Your task to perform on an android device: delete a single message in the gmail app Image 0: 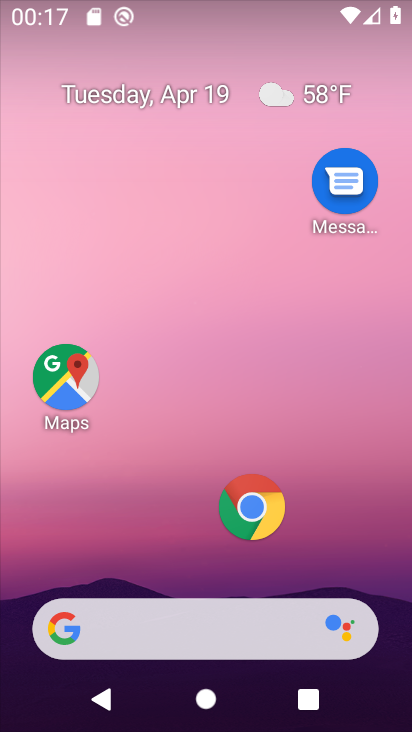
Step 0: drag from (180, 514) to (358, 5)
Your task to perform on an android device: delete a single message in the gmail app Image 1: 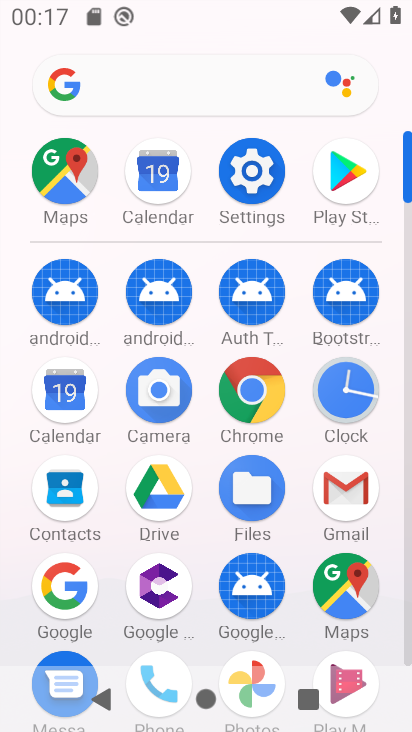
Step 1: click (337, 490)
Your task to perform on an android device: delete a single message in the gmail app Image 2: 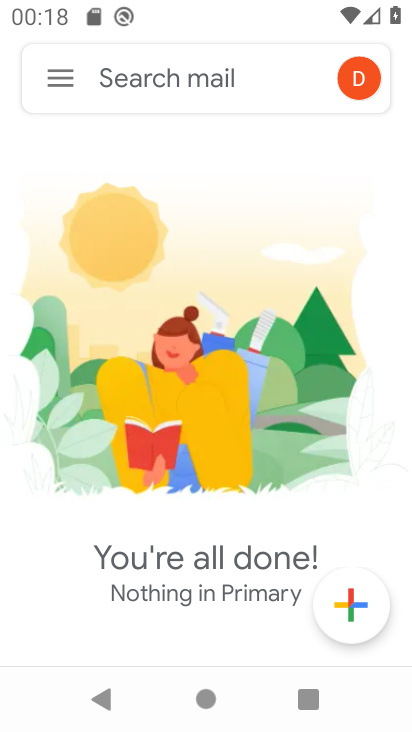
Step 2: click (62, 78)
Your task to perform on an android device: delete a single message in the gmail app Image 3: 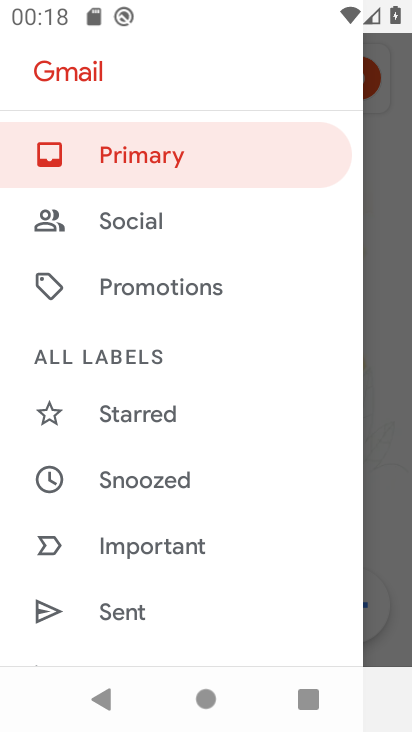
Step 3: drag from (142, 545) to (226, 67)
Your task to perform on an android device: delete a single message in the gmail app Image 4: 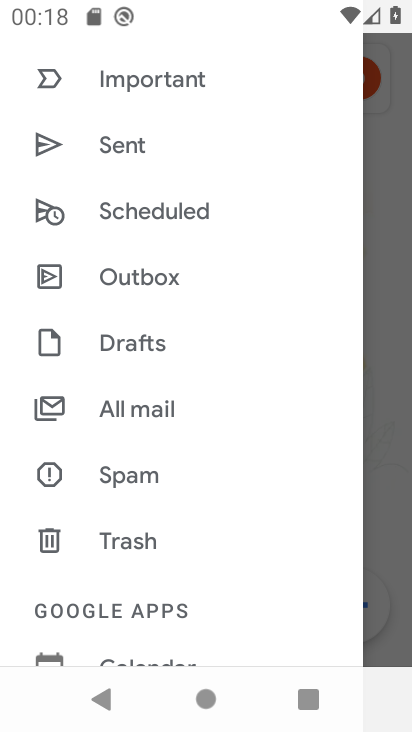
Step 4: click (140, 400)
Your task to perform on an android device: delete a single message in the gmail app Image 5: 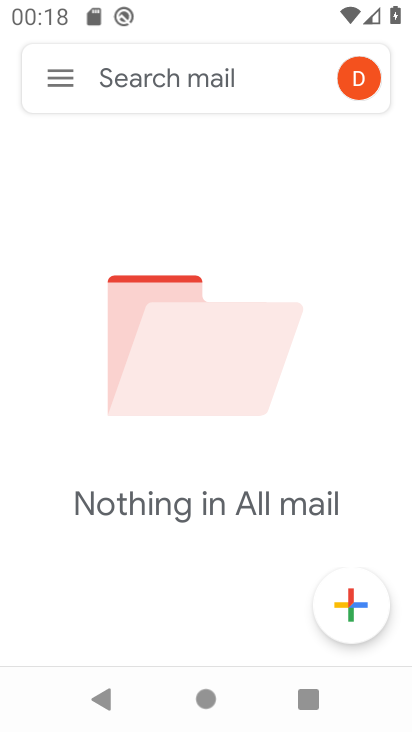
Step 5: task complete